Your task to perform on an android device: turn on notifications settings in the gmail app Image 0: 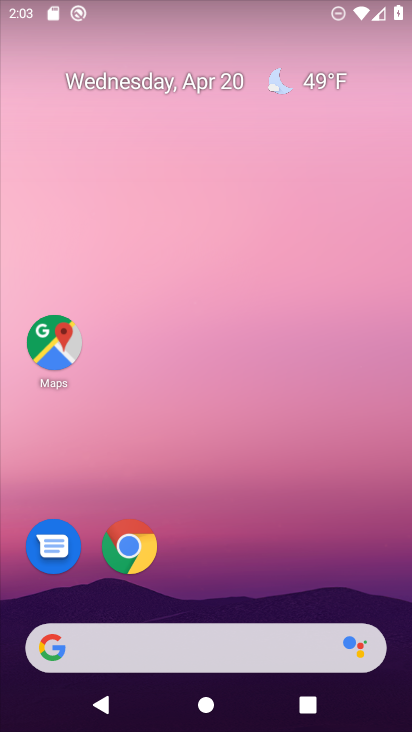
Step 0: drag from (255, 583) to (326, 53)
Your task to perform on an android device: turn on notifications settings in the gmail app Image 1: 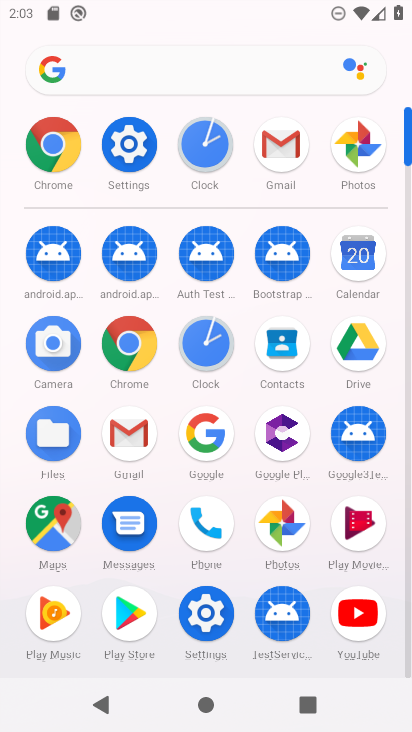
Step 1: click (279, 167)
Your task to perform on an android device: turn on notifications settings in the gmail app Image 2: 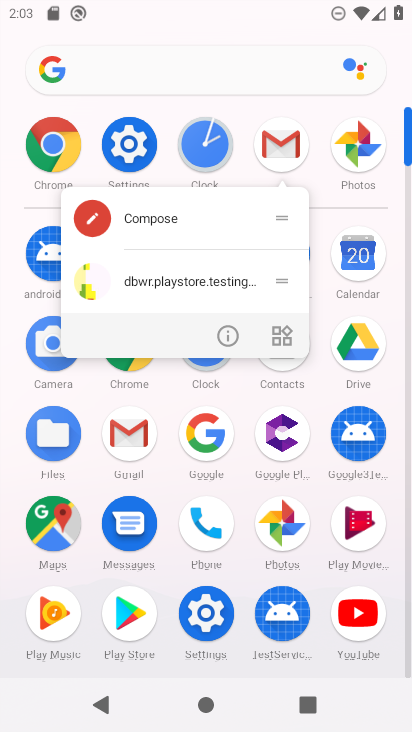
Step 2: click (231, 331)
Your task to perform on an android device: turn on notifications settings in the gmail app Image 3: 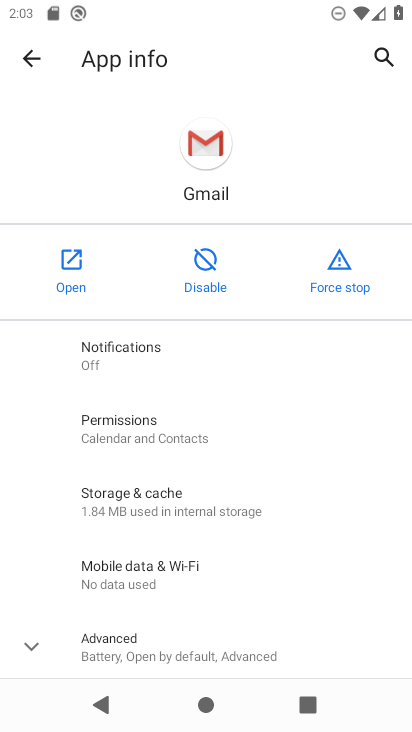
Step 3: click (148, 359)
Your task to perform on an android device: turn on notifications settings in the gmail app Image 4: 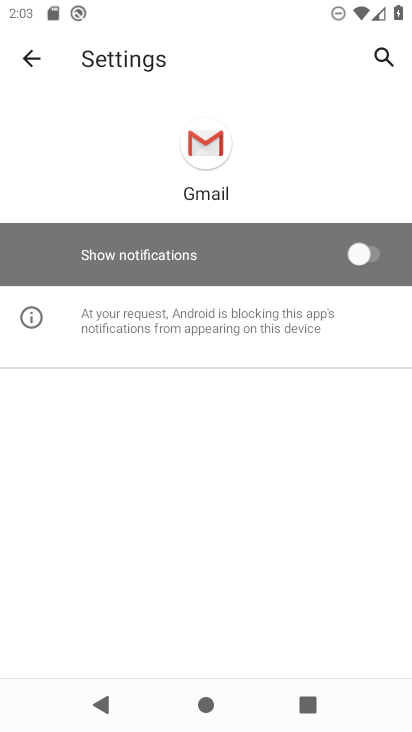
Step 4: click (360, 252)
Your task to perform on an android device: turn on notifications settings in the gmail app Image 5: 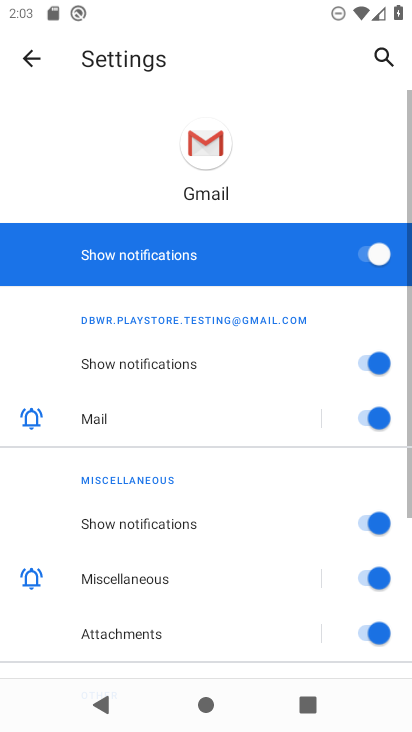
Step 5: task complete